Your task to perform on an android device: turn on airplane mode Image 0: 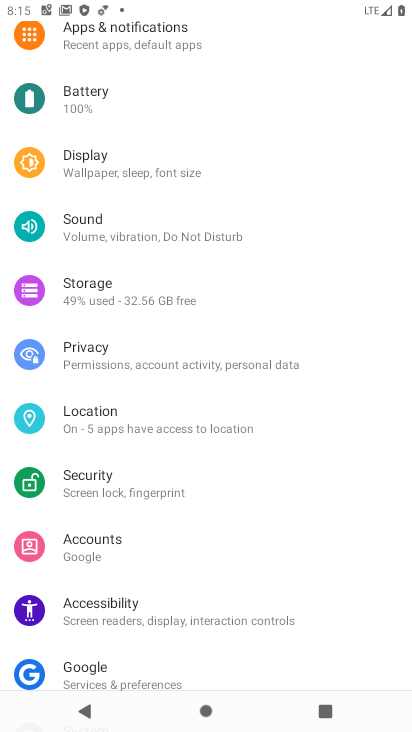
Step 0: press home button
Your task to perform on an android device: turn on airplane mode Image 1: 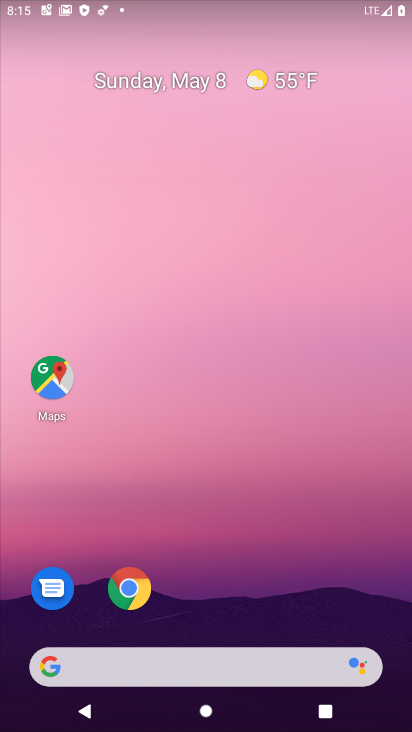
Step 1: drag from (210, 8) to (301, 481)
Your task to perform on an android device: turn on airplane mode Image 2: 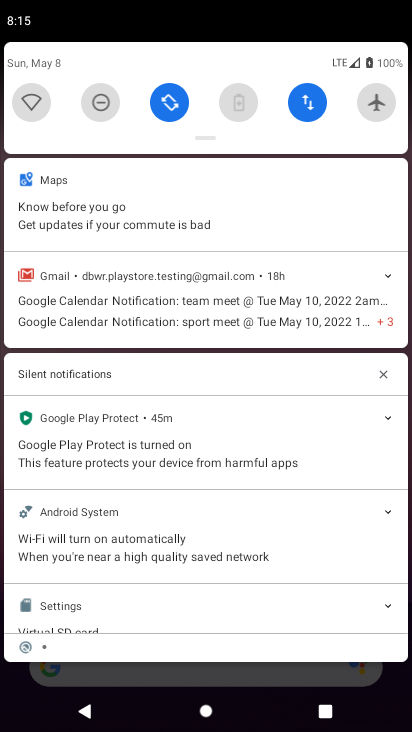
Step 2: drag from (202, 128) to (251, 407)
Your task to perform on an android device: turn on airplane mode Image 3: 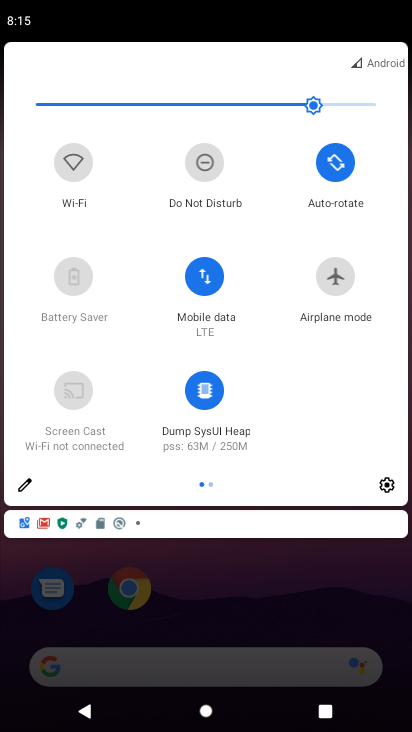
Step 3: click (332, 279)
Your task to perform on an android device: turn on airplane mode Image 4: 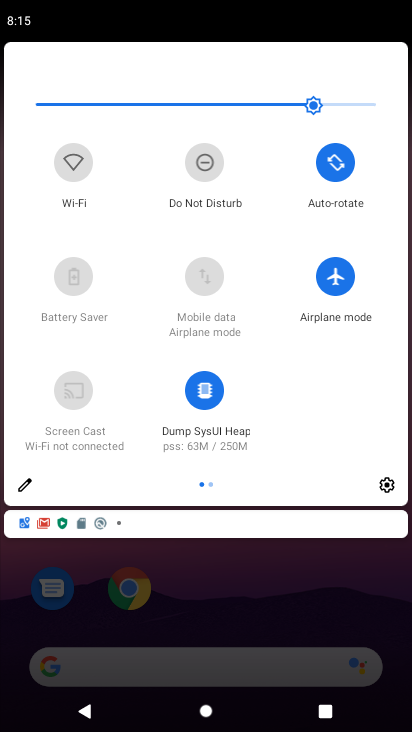
Step 4: task complete